Your task to perform on an android device: set the stopwatch Image 0: 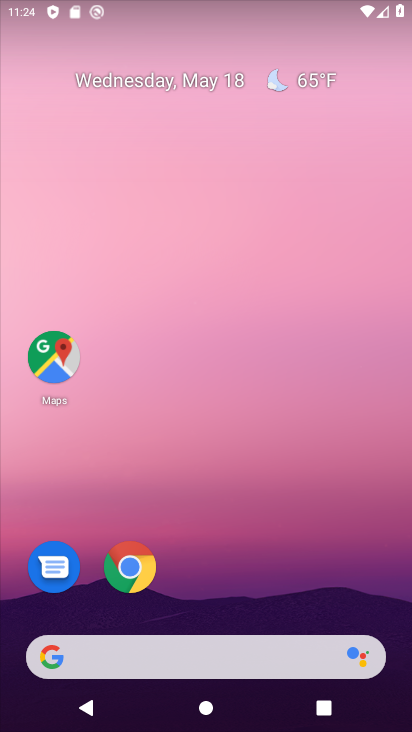
Step 0: drag from (234, 596) to (242, 55)
Your task to perform on an android device: set the stopwatch Image 1: 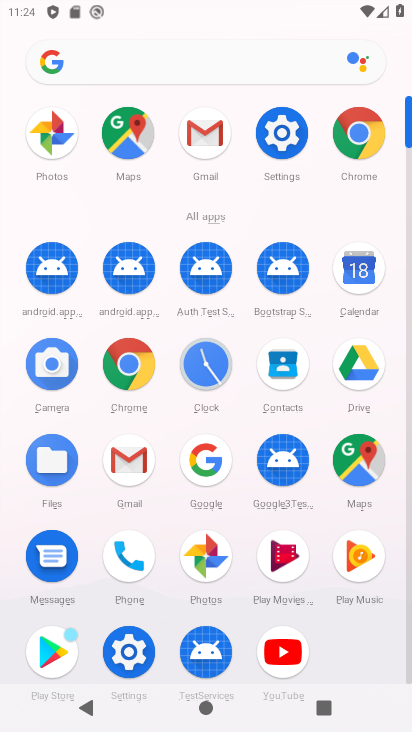
Step 1: click (213, 359)
Your task to perform on an android device: set the stopwatch Image 2: 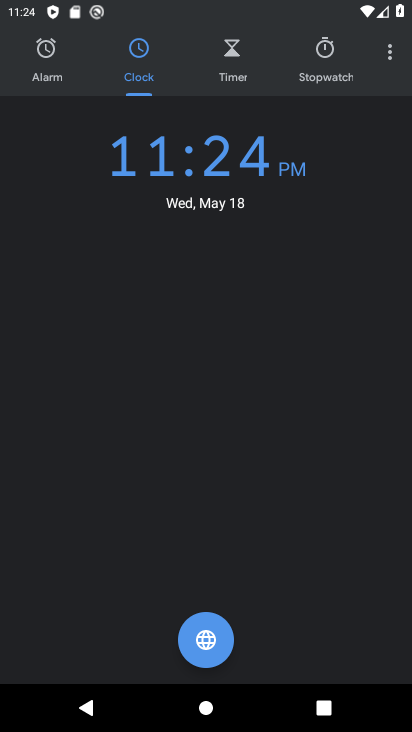
Step 2: click (324, 60)
Your task to perform on an android device: set the stopwatch Image 3: 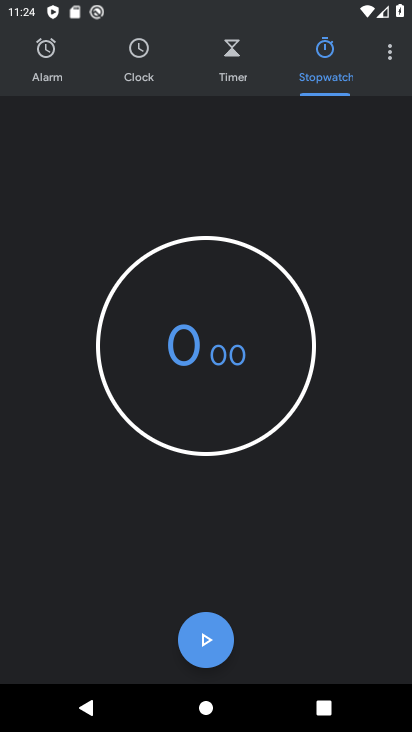
Step 3: click (212, 639)
Your task to perform on an android device: set the stopwatch Image 4: 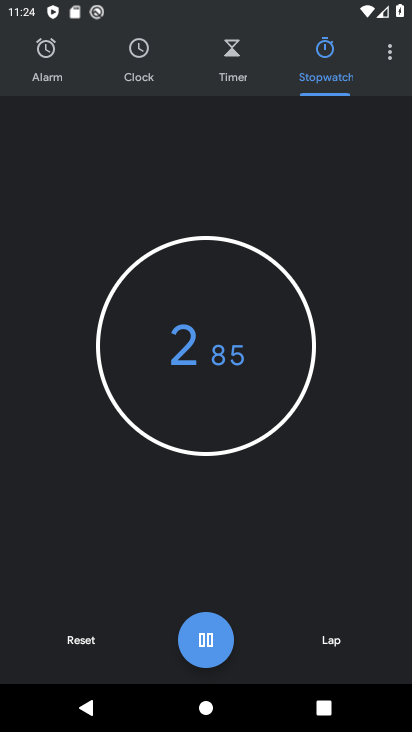
Step 4: task complete